Your task to perform on an android device: Go to ESPN.com Image 0: 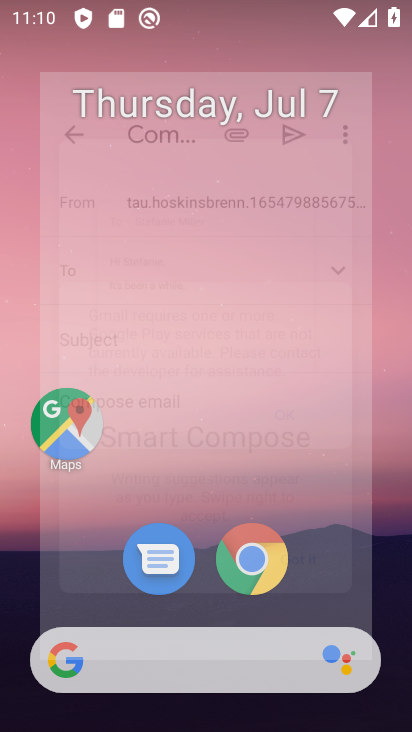
Step 0: drag from (365, 587) to (379, 332)
Your task to perform on an android device: Go to ESPN.com Image 1: 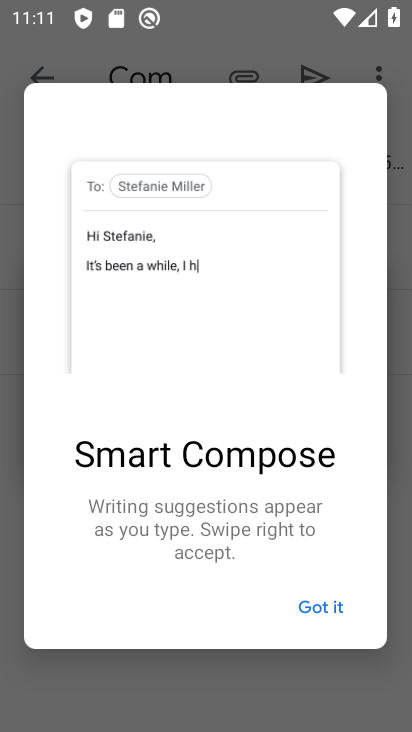
Step 1: press home button
Your task to perform on an android device: Go to ESPN.com Image 2: 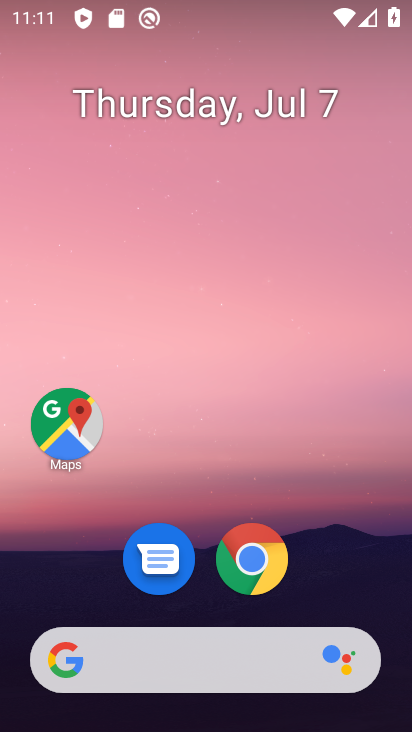
Step 2: drag from (351, 575) to (358, 86)
Your task to perform on an android device: Go to ESPN.com Image 3: 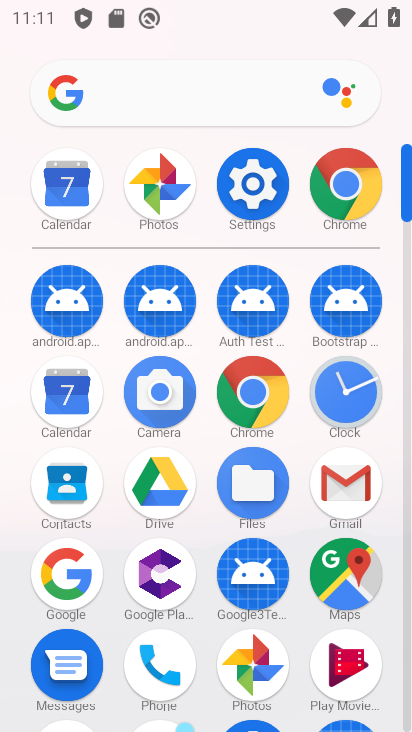
Step 3: click (258, 388)
Your task to perform on an android device: Go to ESPN.com Image 4: 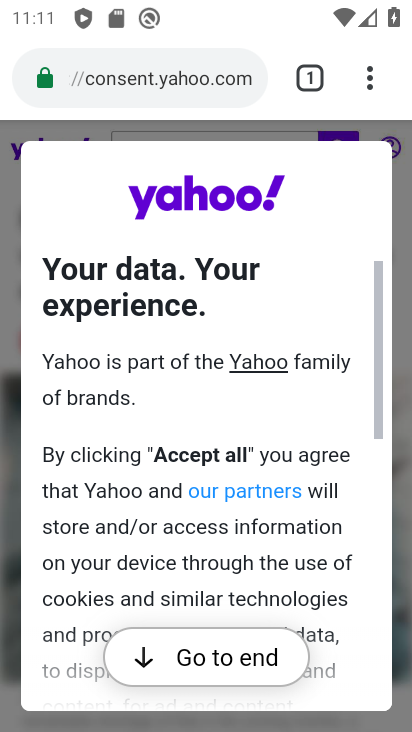
Step 4: click (197, 79)
Your task to perform on an android device: Go to ESPN.com Image 5: 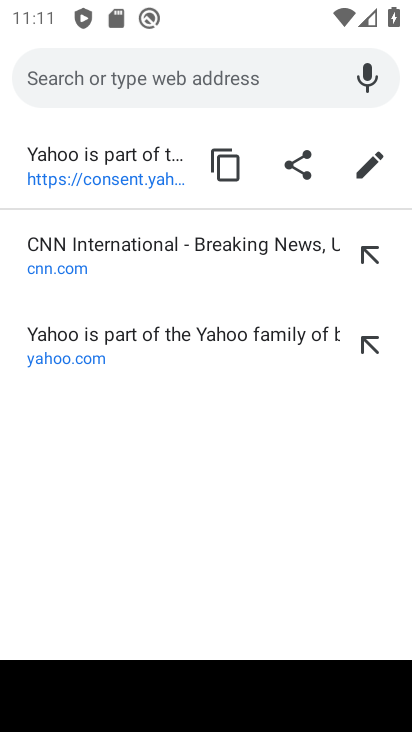
Step 5: type "espn.com"
Your task to perform on an android device: Go to ESPN.com Image 6: 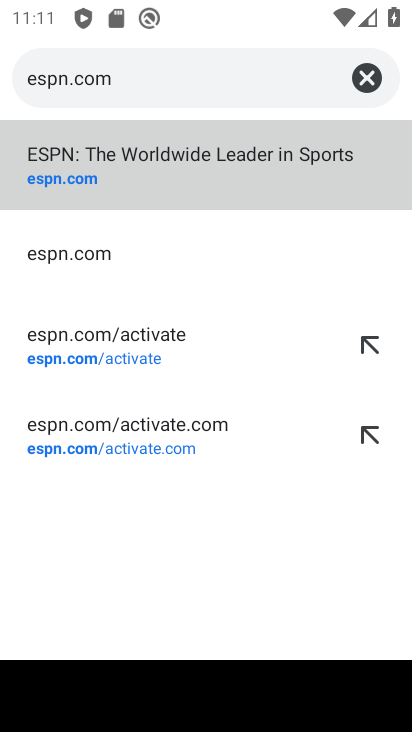
Step 6: click (146, 162)
Your task to perform on an android device: Go to ESPN.com Image 7: 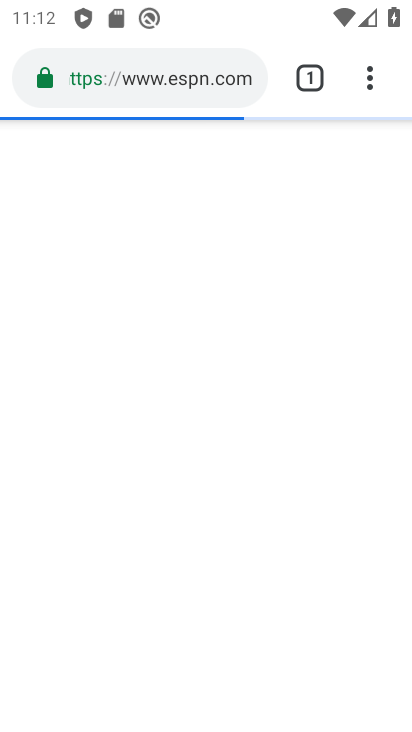
Step 7: task complete